Your task to perform on an android device: Set the phone to "Do not disturb". Image 0: 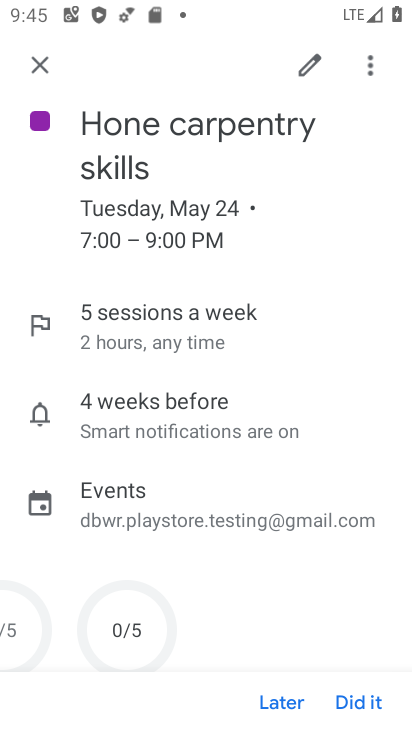
Step 0: press home button
Your task to perform on an android device: Set the phone to "Do not disturb". Image 1: 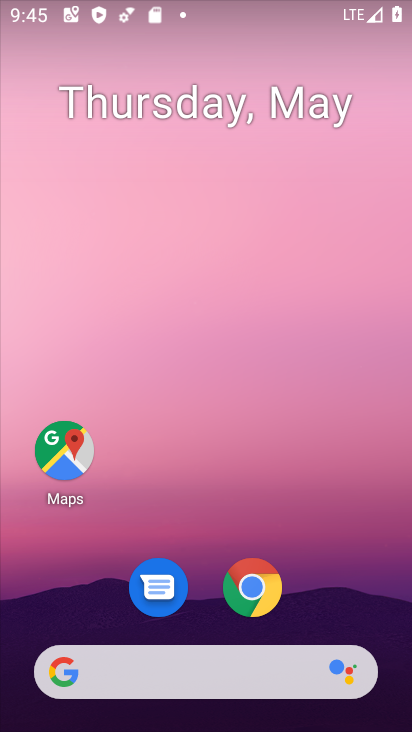
Step 1: drag from (362, 627) to (308, 25)
Your task to perform on an android device: Set the phone to "Do not disturb". Image 2: 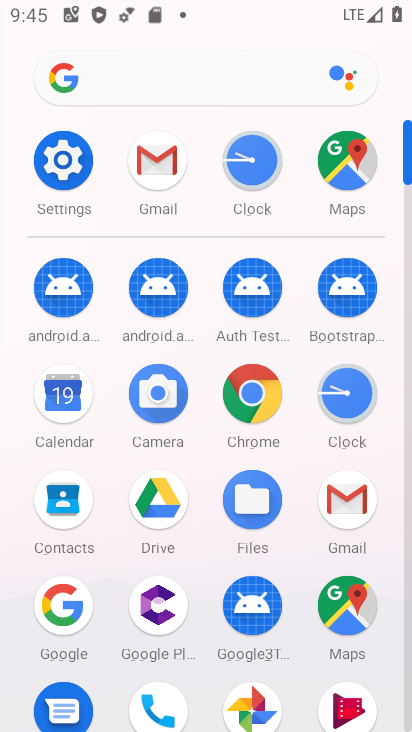
Step 2: click (60, 154)
Your task to perform on an android device: Set the phone to "Do not disturb". Image 3: 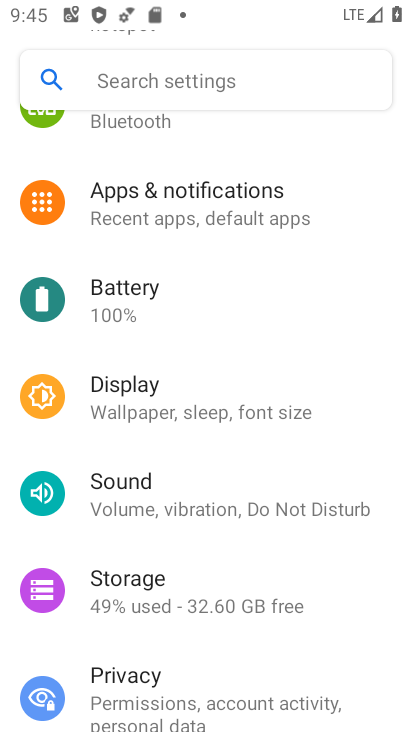
Step 3: click (154, 489)
Your task to perform on an android device: Set the phone to "Do not disturb". Image 4: 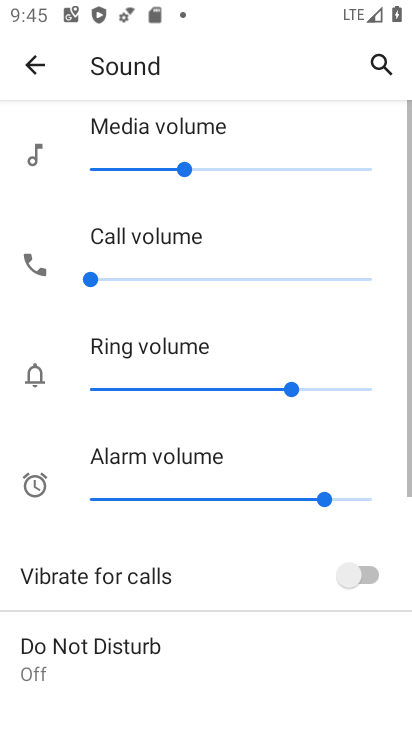
Step 4: click (99, 645)
Your task to perform on an android device: Set the phone to "Do not disturb". Image 5: 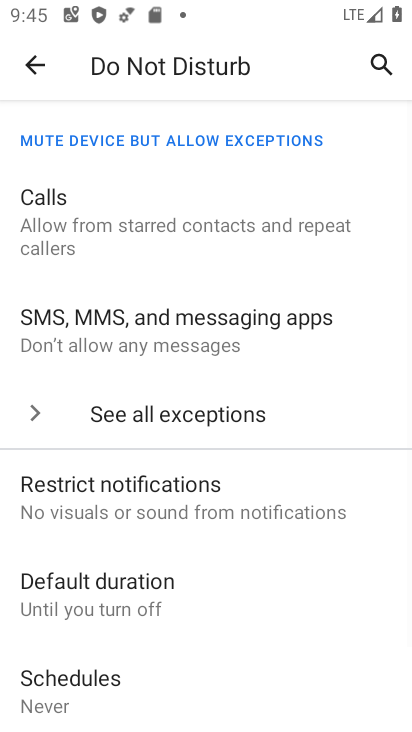
Step 5: drag from (277, 625) to (295, 276)
Your task to perform on an android device: Set the phone to "Do not disturb". Image 6: 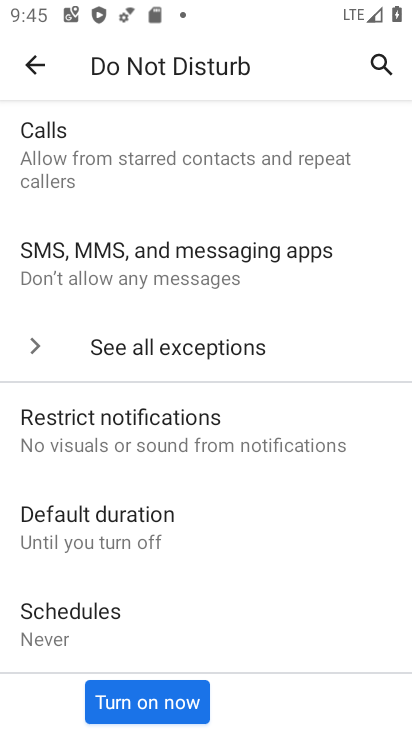
Step 6: click (143, 710)
Your task to perform on an android device: Set the phone to "Do not disturb". Image 7: 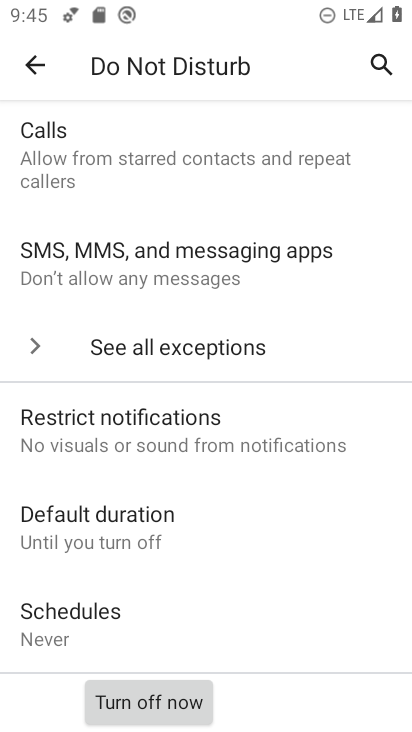
Step 7: task complete